Your task to perform on an android device: add a contact in the contacts app Image 0: 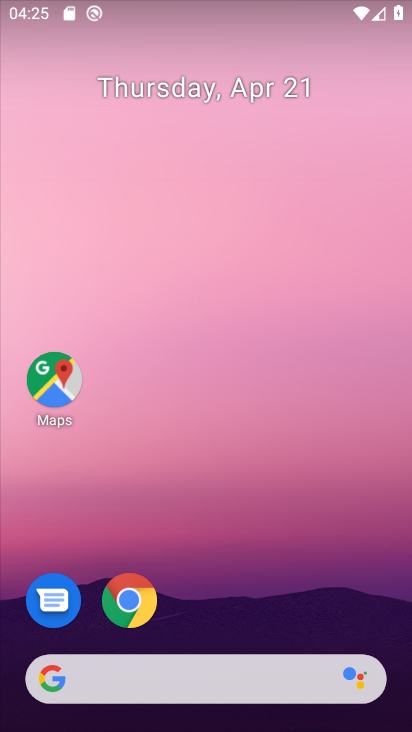
Step 0: drag from (374, 570) to (377, 2)
Your task to perform on an android device: add a contact in the contacts app Image 1: 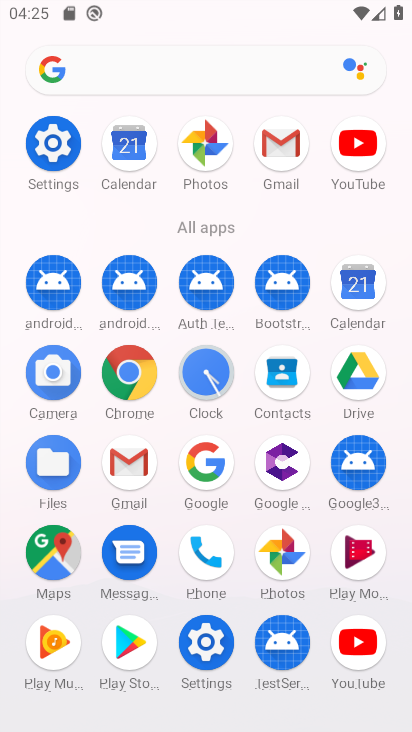
Step 1: click (282, 375)
Your task to perform on an android device: add a contact in the contacts app Image 2: 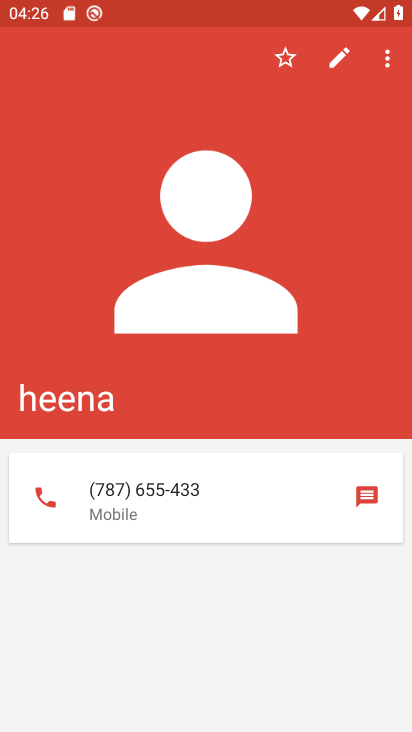
Step 2: press back button
Your task to perform on an android device: add a contact in the contacts app Image 3: 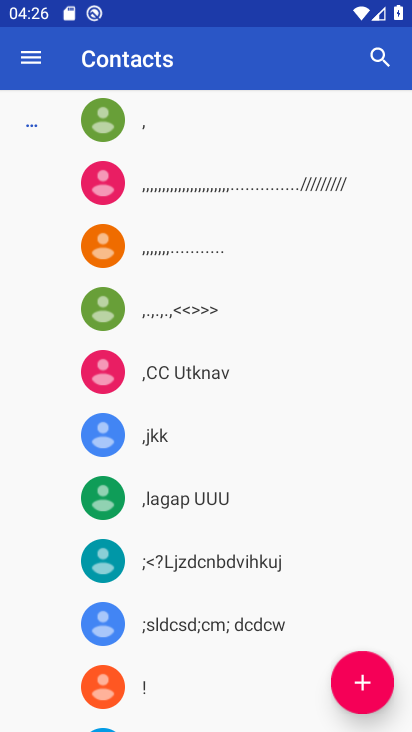
Step 3: click (352, 678)
Your task to perform on an android device: add a contact in the contacts app Image 4: 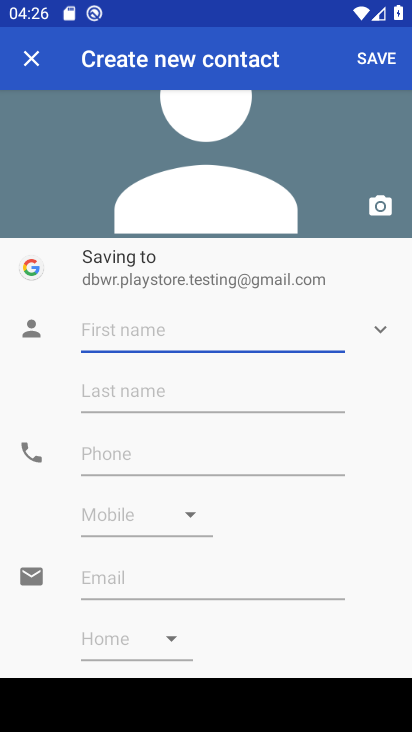
Step 4: type "rock"
Your task to perform on an android device: add a contact in the contacts app Image 5: 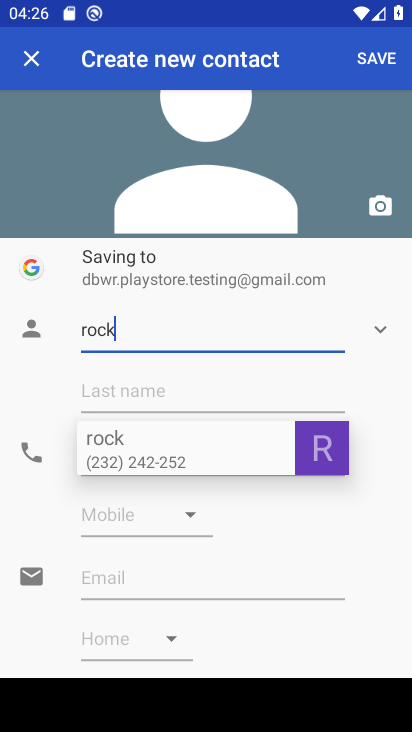
Step 5: click (159, 440)
Your task to perform on an android device: add a contact in the contacts app Image 6: 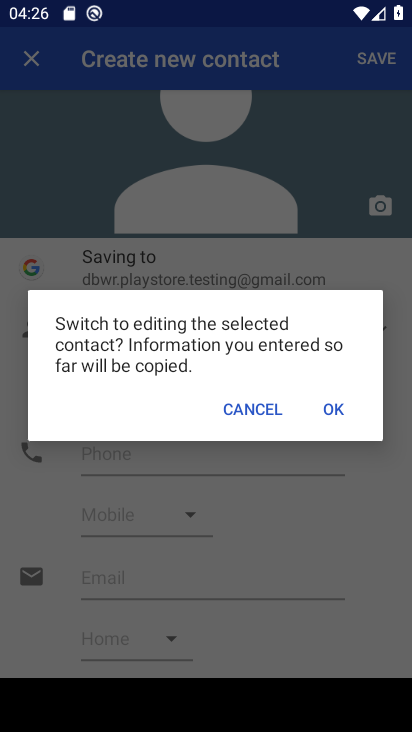
Step 6: click (368, 446)
Your task to perform on an android device: add a contact in the contacts app Image 7: 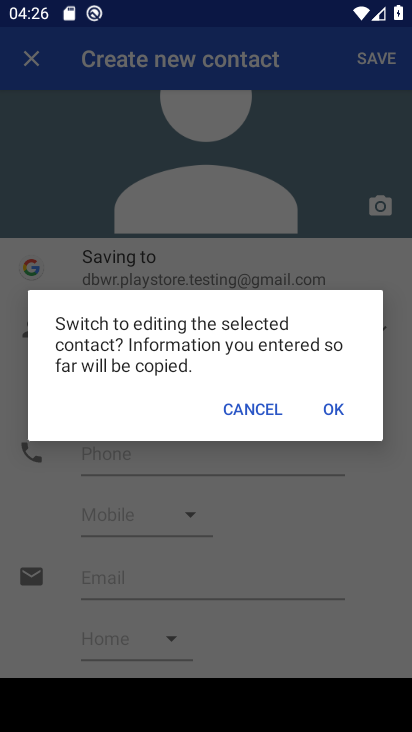
Step 7: click (269, 416)
Your task to perform on an android device: add a contact in the contacts app Image 8: 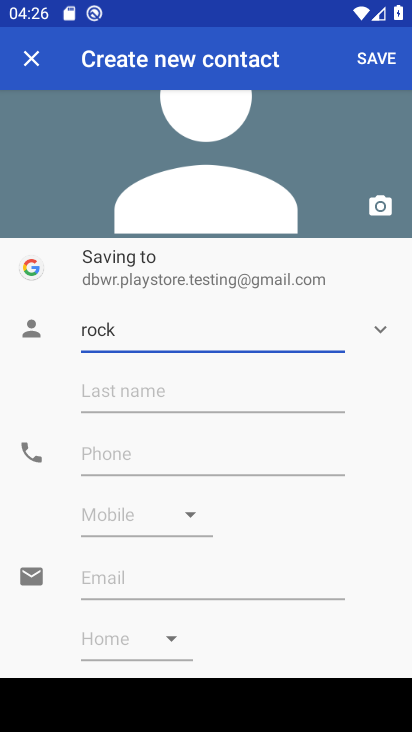
Step 8: click (236, 459)
Your task to perform on an android device: add a contact in the contacts app Image 9: 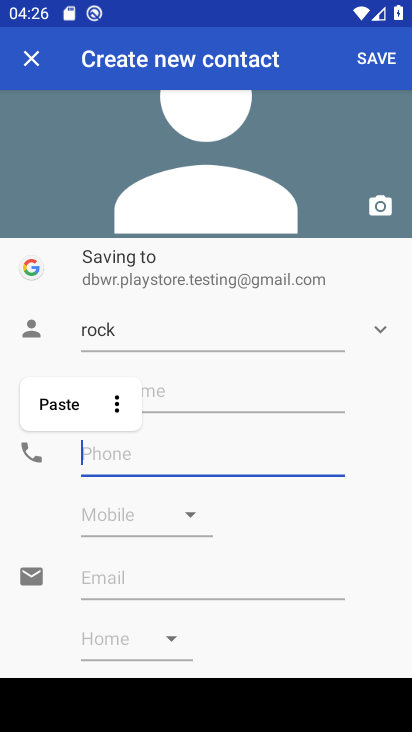
Step 9: type "9876554321134"
Your task to perform on an android device: add a contact in the contacts app Image 10: 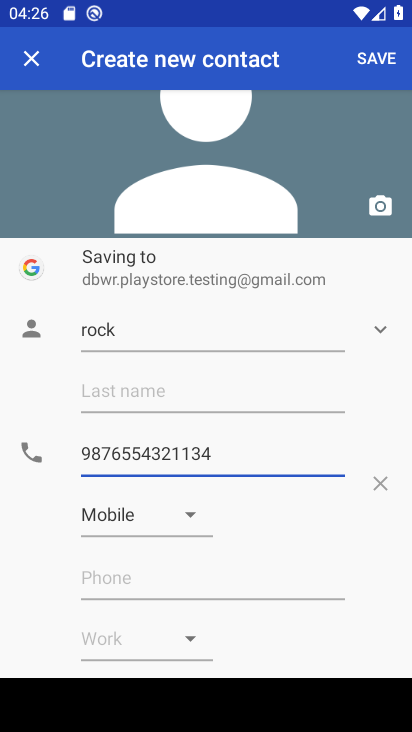
Step 10: click (391, 70)
Your task to perform on an android device: add a contact in the contacts app Image 11: 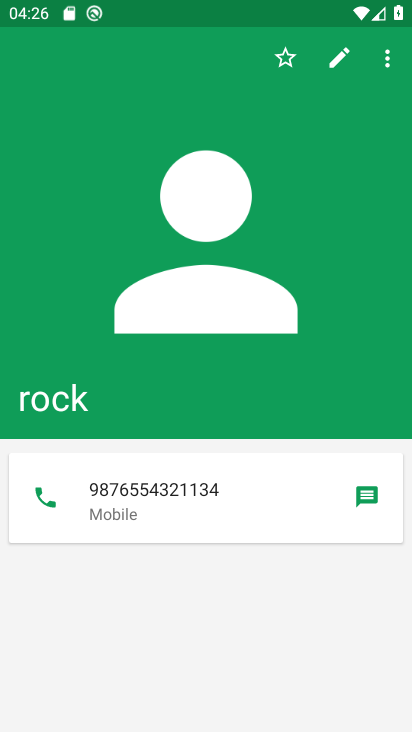
Step 11: task complete